Your task to perform on an android device: open app "Chime – Mobile Banking" (install if not already installed), go to login, and select forgot password Image 0: 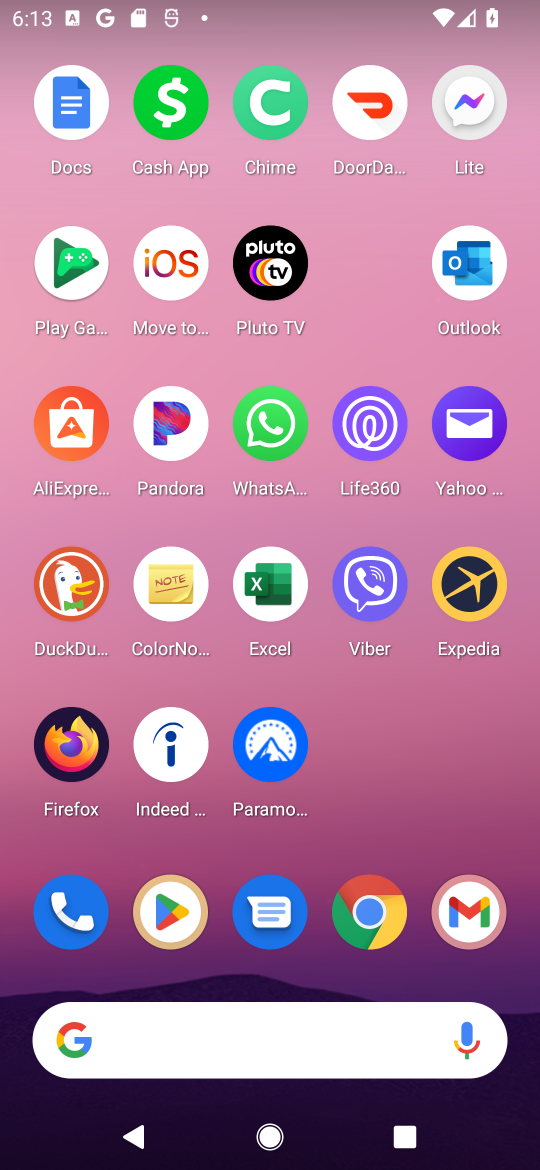
Step 0: click (180, 908)
Your task to perform on an android device: open app "Chime – Mobile Banking" (install if not already installed), go to login, and select forgot password Image 1: 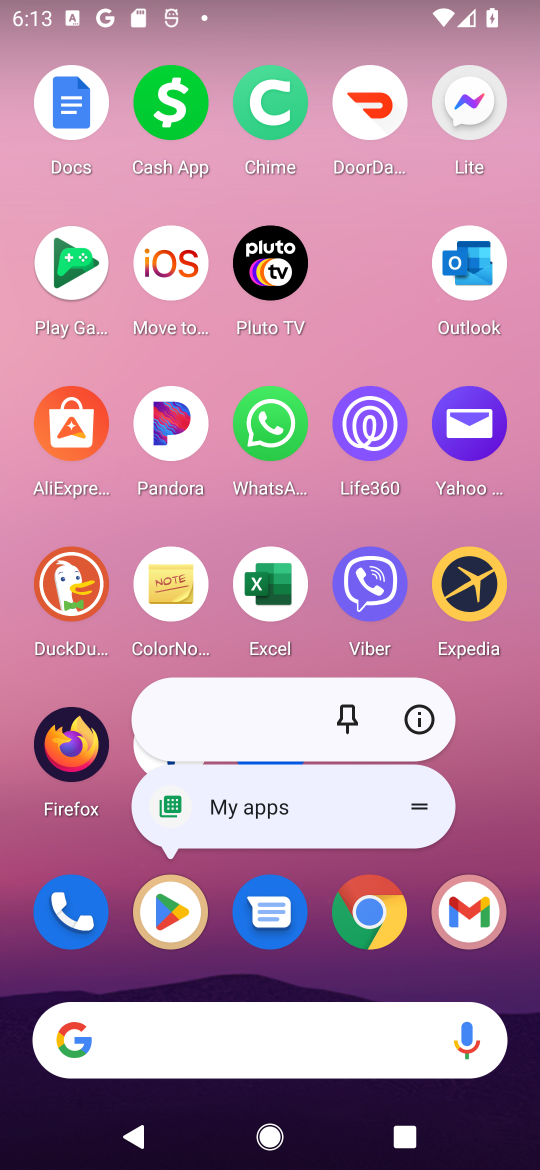
Step 1: click (180, 908)
Your task to perform on an android device: open app "Chime – Mobile Banking" (install if not already installed), go to login, and select forgot password Image 2: 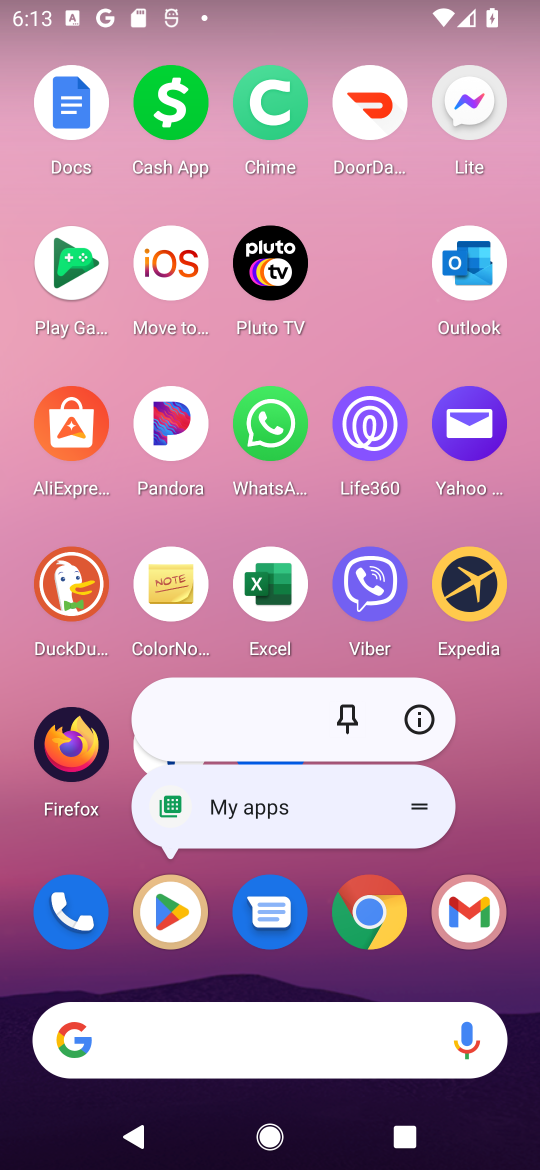
Step 2: click (152, 874)
Your task to perform on an android device: open app "Chime – Mobile Banking" (install if not already installed), go to login, and select forgot password Image 3: 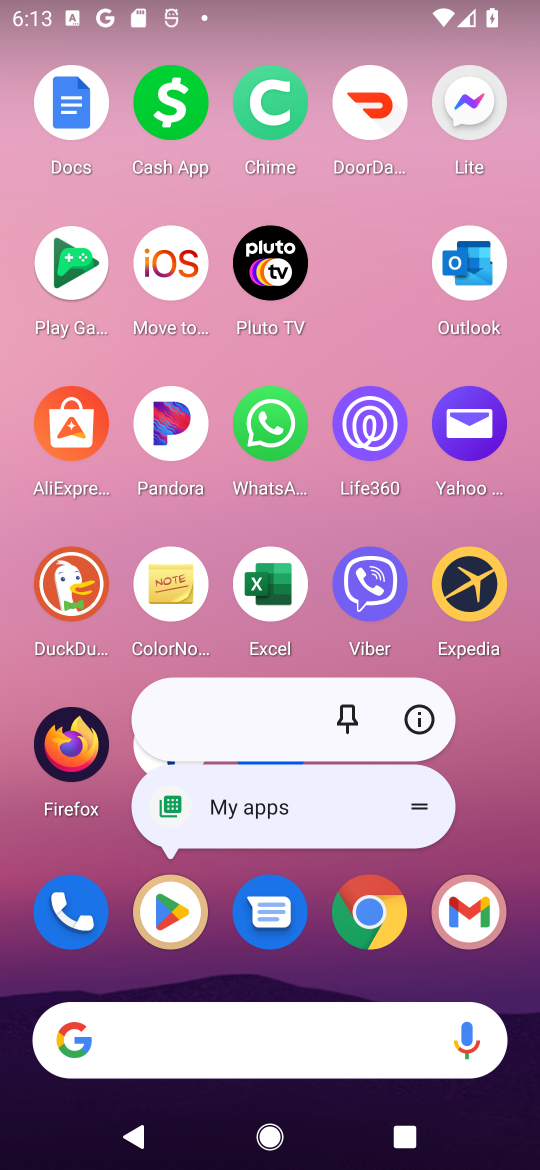
Step 3: click (159, 933)
Your task to perform on an android device: open app "Chime – Mobile Banking" (install if not already installed), go to login, and select forgot password Image 4: 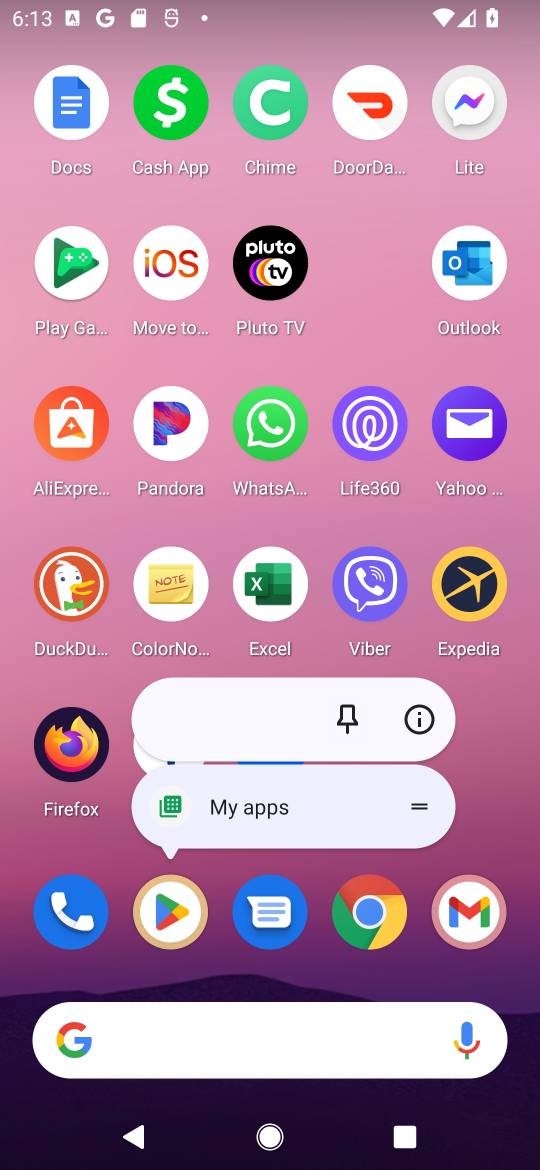
Step 4: click (174, 899)
Your task to perform on an android device: open app "Chime – Mobile Banking" (install if not already installed), go to login, and select forgot password Image 5: 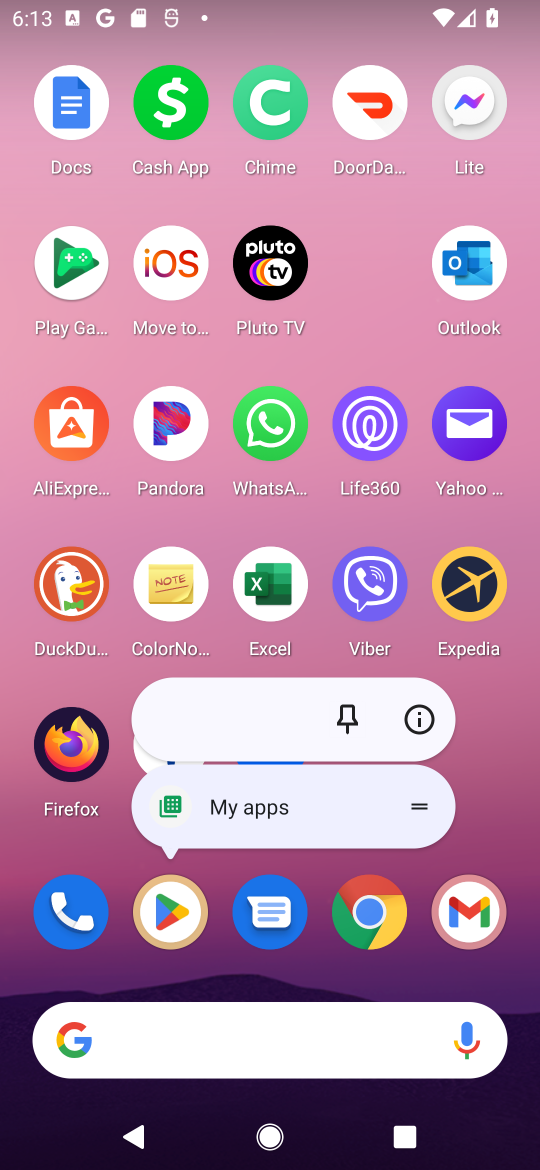
Step 5: click (174, 899)
Your task to perform on an android device: open app "Chime – Mobile Banking" (install if not already installed), go to login, and select forgot password Image 6: 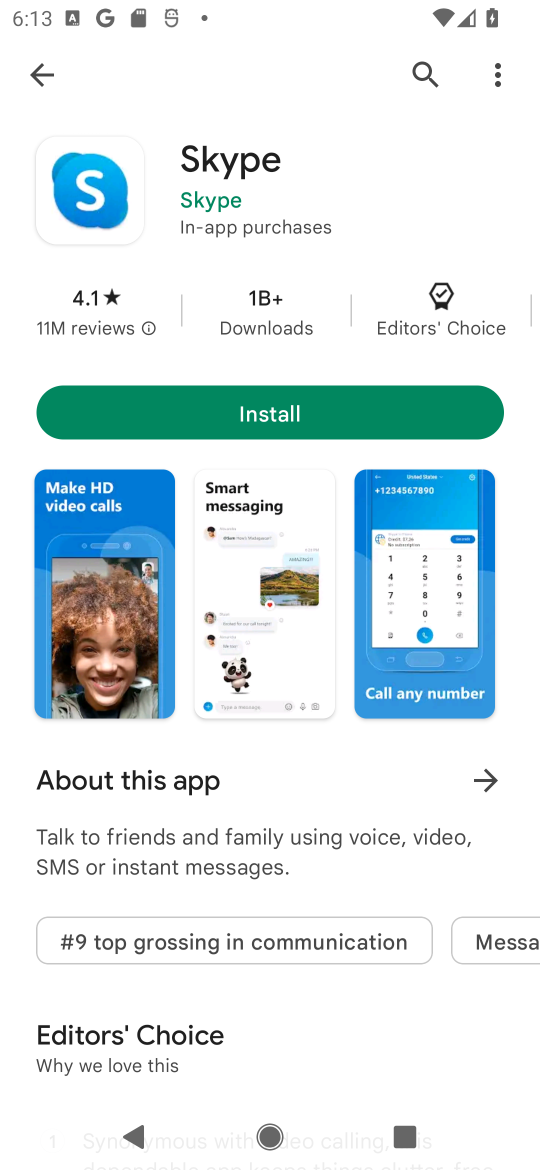
Step 6: click (32, 72)
Your task to perform on an android device: open app "Chime – Mobile Banking" (install if not already installed), go to login, and select forgot password Image 7: 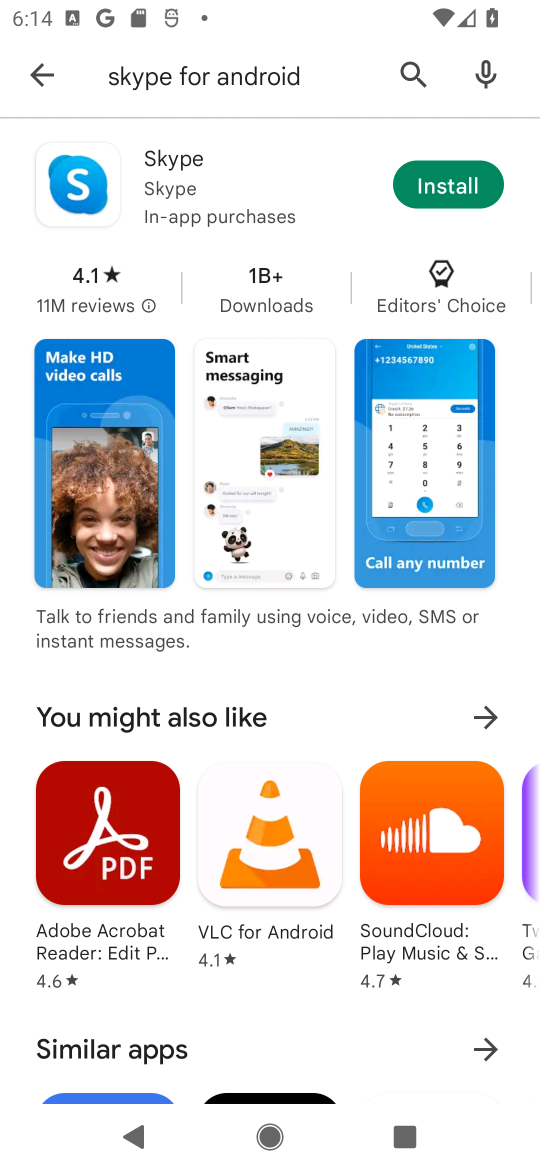
Step 7: click (41, 72)
Your task to perform on an android device: open app "Chime – Mobile Banking" (install if not already installed), go to login, and select forgot password Image 8: 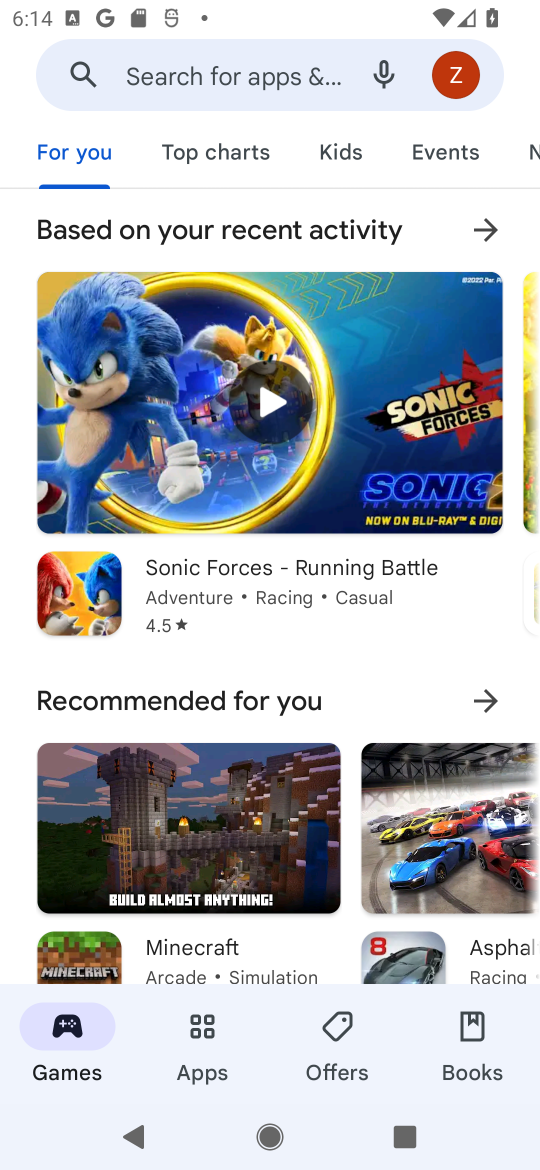
Step 8: click (246, 66)
Your task to perform on an android device: open app "Chime – Mobile Banking" (install if not already installed), go to login, and select forgot password Image 9: 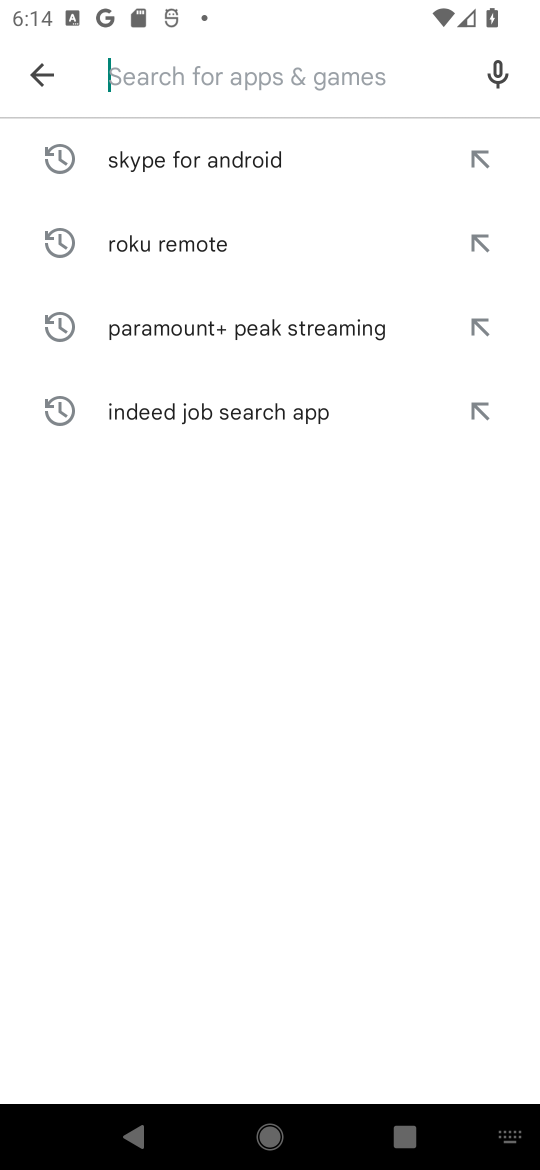
Step 9: type "chime "
Your task to perform on an android device: open app "Chime – Mobile Banking" (install if not already installed), go to login, and select forgot password Image 10: 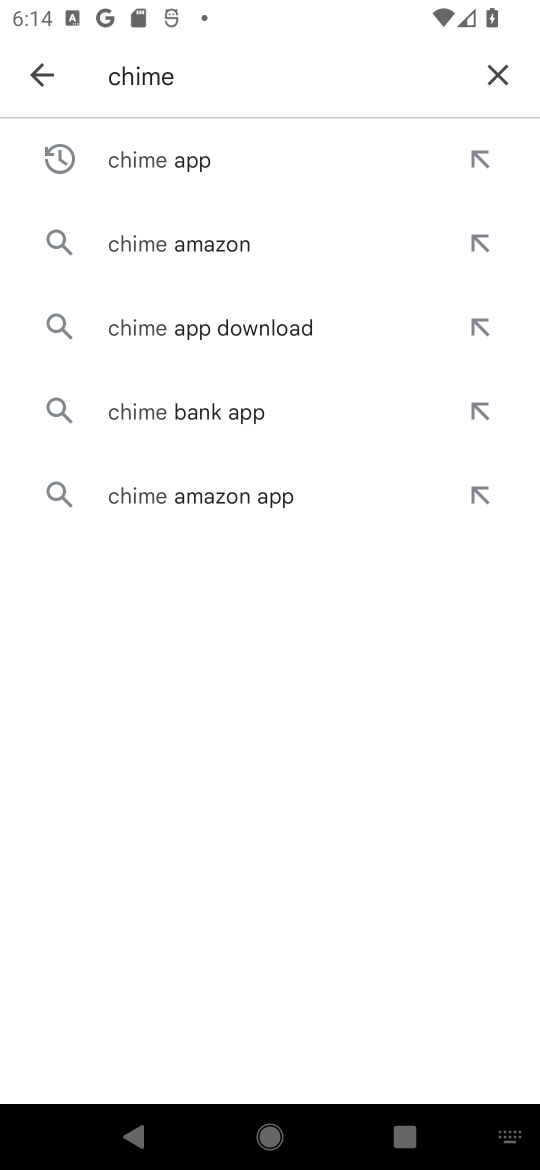
Step 10: click (166, 154)
Your task to perform on an android device: open app "Chime – Mobile Banking" (install if not already installed), go to login, and select forgot password Image 11: 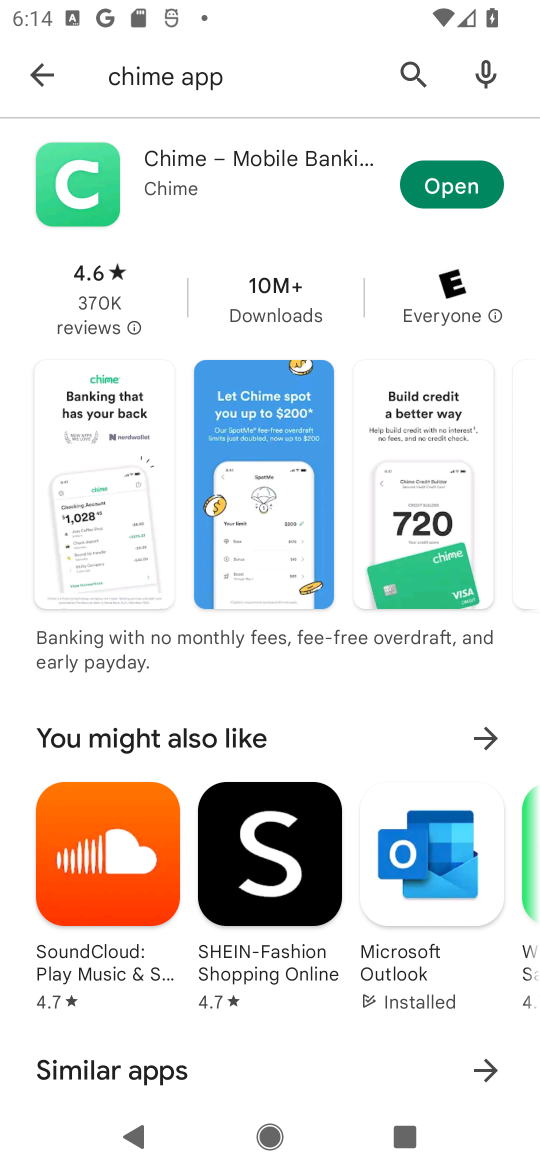
Step 11: click (487, 178)
Your task to perform on an android device: open app "Chime – Mobile Banking" (install if not already installed), go to login, and select forgot password Image 12: 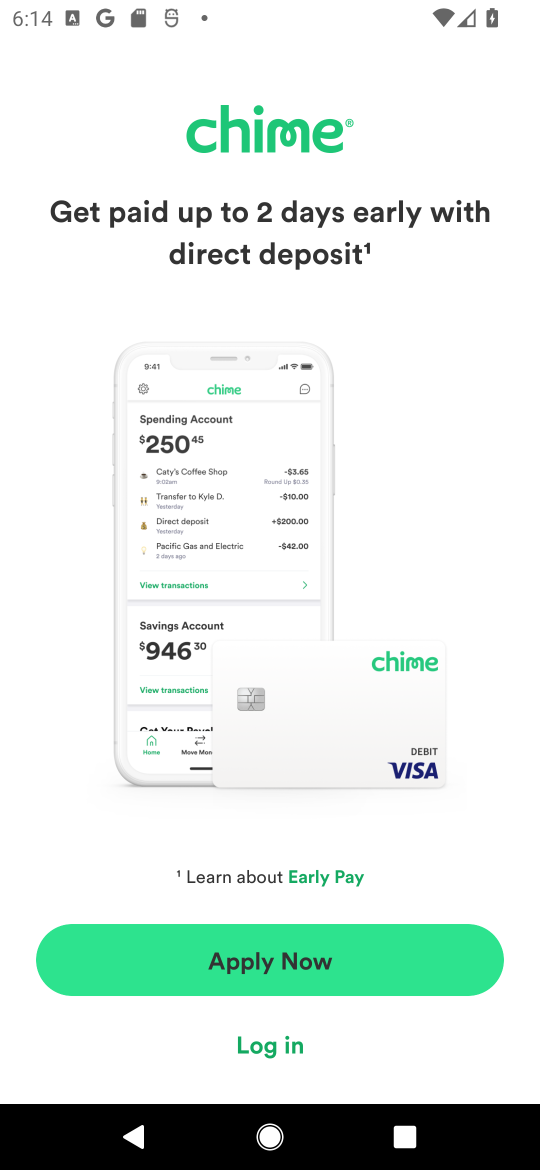
Step 12: task complete